Your task to perform on an android device: toggle translation in the chrome app Image 0: 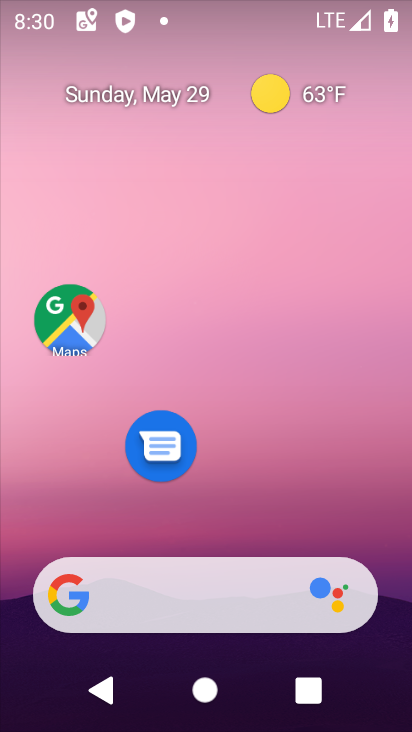
Step 0: drag from (193, 520) to (220, 70)
Your task to perform on an android device: toggle translation in the chrome app Image 1: 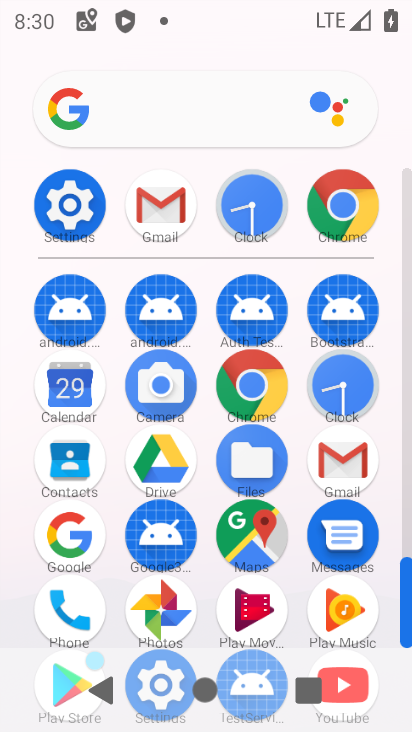
Step 1: click (333, 201)
Your task to perform on an android device: toggle translation in the chrome app Image 2: 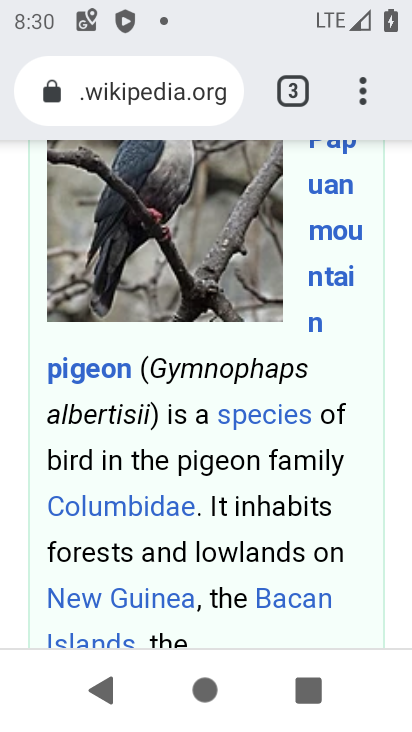
Step 2: drag from (356, 87) to (105, 486)
Your task to perform on an android device: toggle translation in the chrome app Image 3: 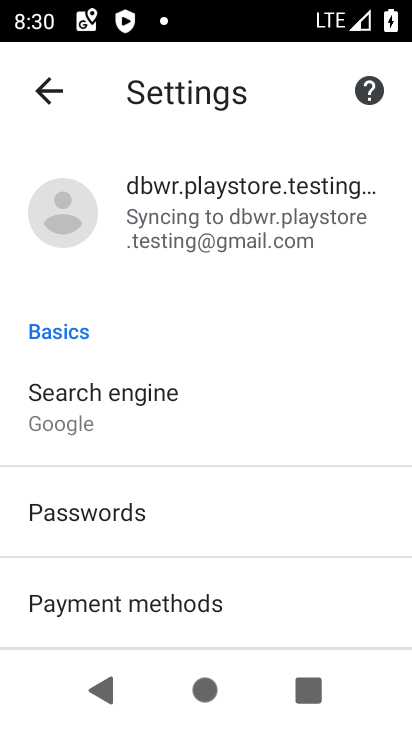
Step 3: drag from (192, 611) to (179, 230)
Your task to perform on an android device: toggle translation in the chrome app Image 4: 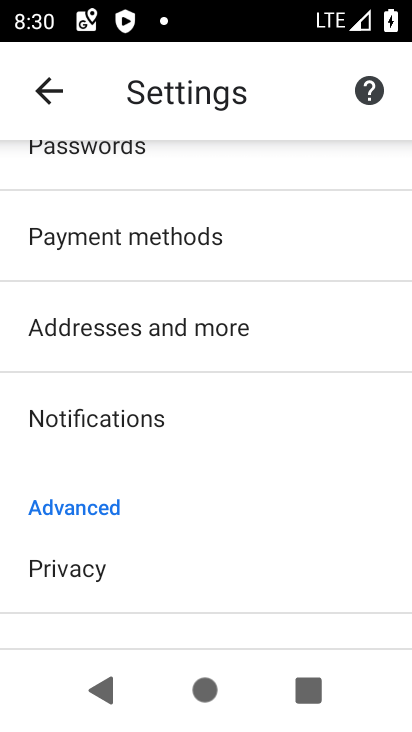
Step 4: drag from (250, 491) to (257, 196)
Your task to perform on an android device: toggle translation in the chrome app Image 5: 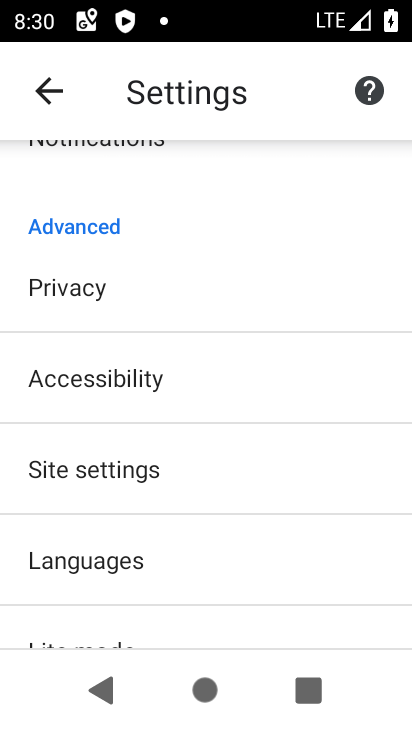
Step 5: click (151, 555)
Your task to perform on an android device: toggle translation in the chrome app Image 6: 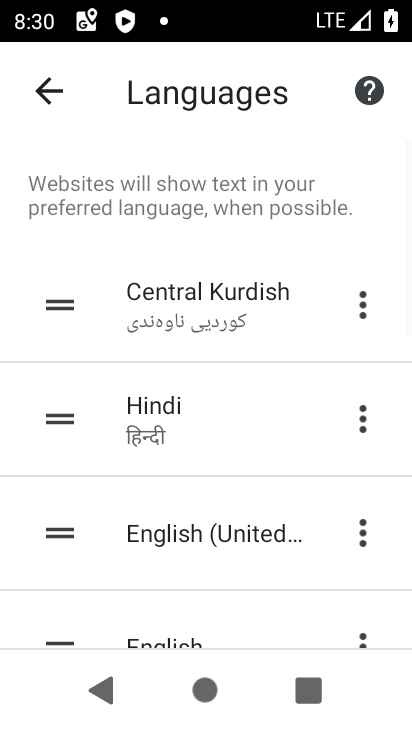
Step 6: drag from (206, 519) to (205, 213)
Your task to perform on an android device: toggle translation in the chrome app Image 7: 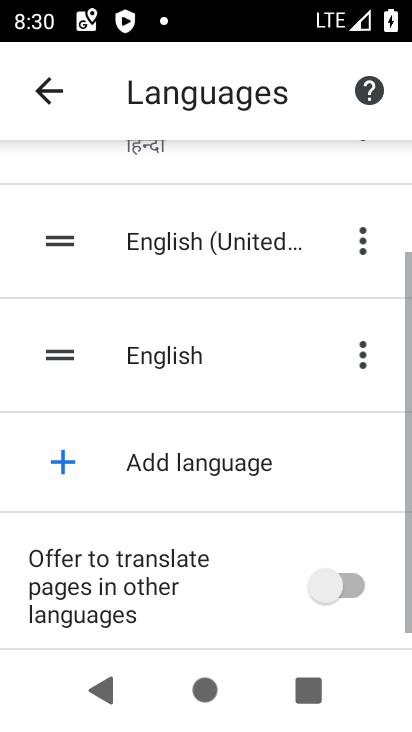
Step 7: drag from (197, 538) to (208, 115)
Your task to perform on an android device: toggle translation in the chrome app Image 8: 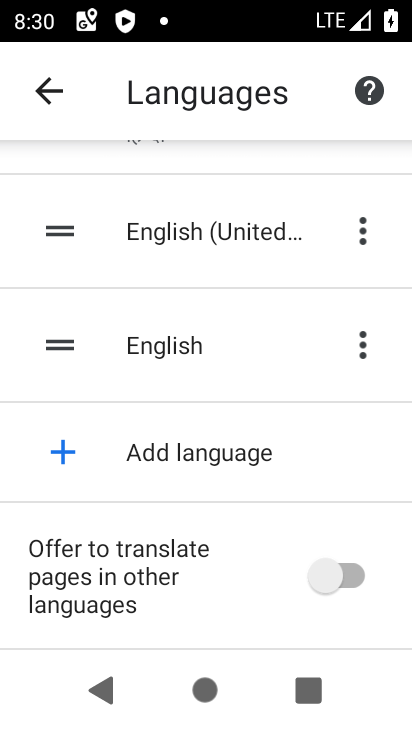
Step 8: click (357, 573)
Your task to perform on an android device: toggle translation in the chrome app Image 9: 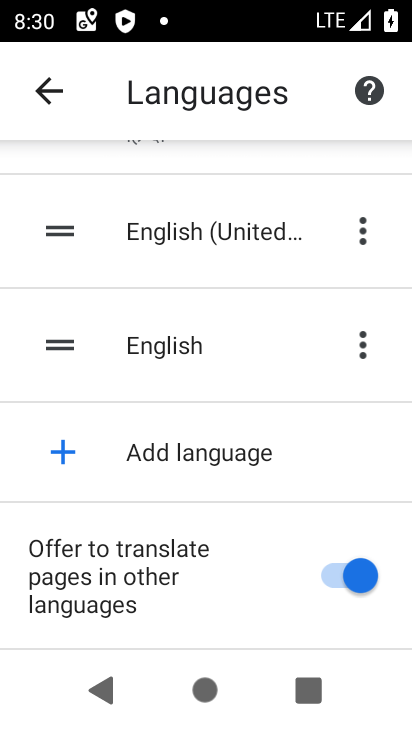
Step 9: task complete